Your task to perform on an android device: turn on javascript in the chrome app Image 0: 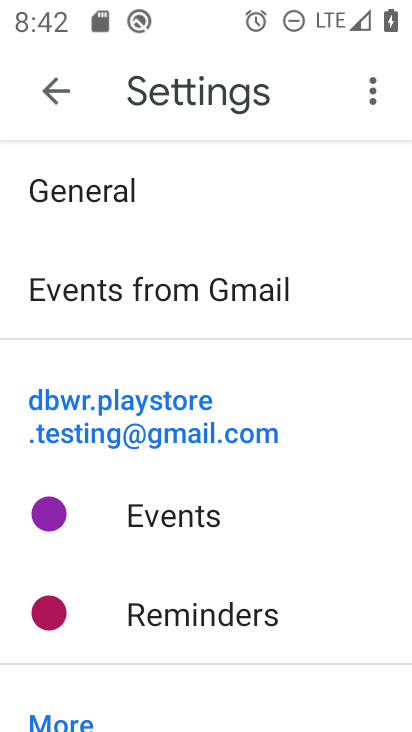
Step 0: press home button
Your task to perform on an android device: turn on javascript in the chrome app Image 1: 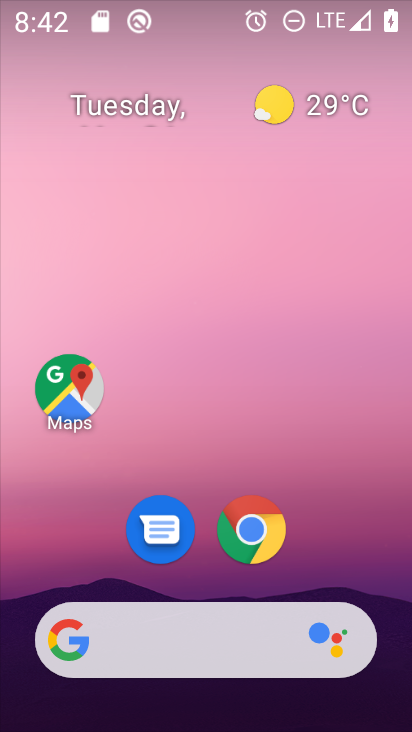
Step 1: drag from (392, 624) to (273, 92)
Your task to perform on an android device: turn on javascript in the chrome app Image 2: 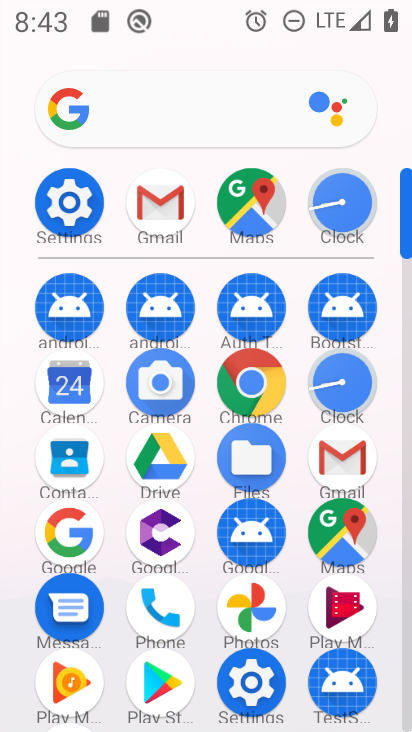
Step 2: click (240, 368)
Your task to perform on an android device: turn on javascript in the chrome app Image 3: 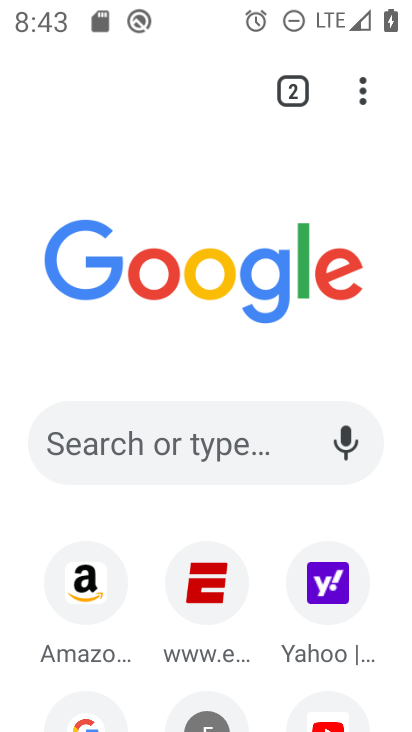
Step 3: click (367, 90)
Your task to perform on an android device: turn on javascript in the chrome app Image 4: 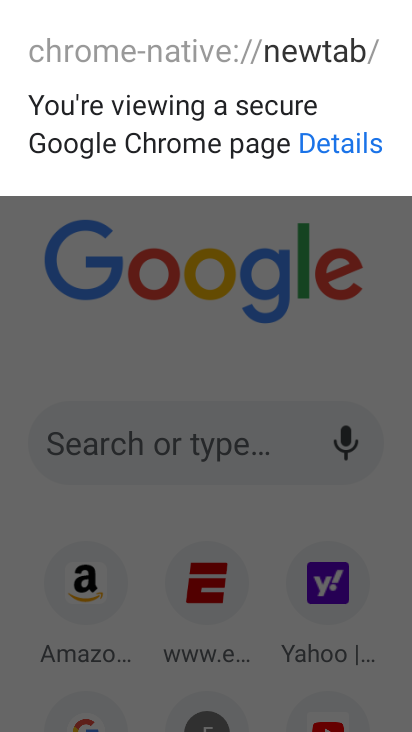
Step 4: press back button
Your task to perform on an android device: turn on javascript in the chrome app Image 5: 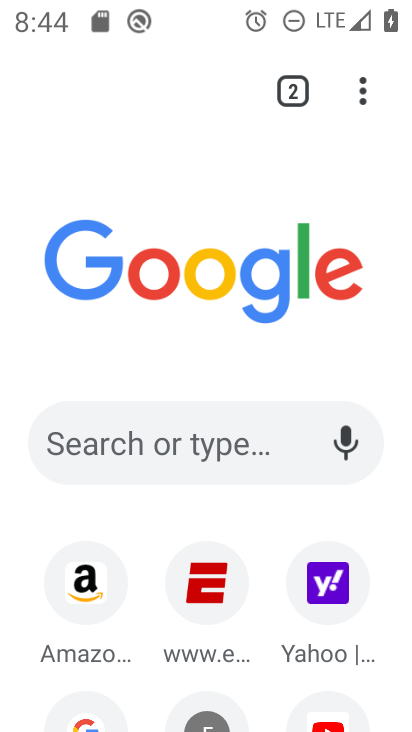
Step 5: click (360, 90)
Your task to perform on an android device: turn on javascript in the chrome app Image 6: 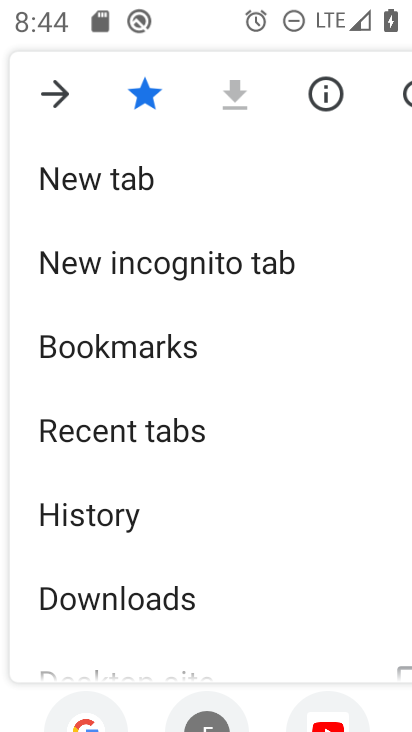
Step 6: drag from (184, 660) to (213, 197)
Your task to perform on an android device: turn on javascript in the chrome app Image 7: 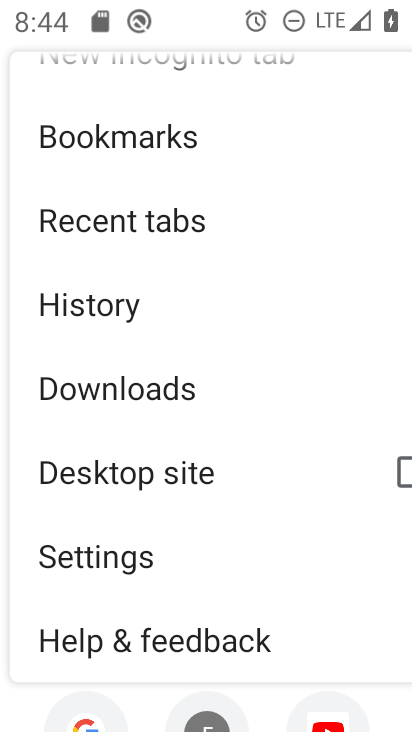
Step 7: click (144, 569)
Your task to perform on an android device: turn on javascript in the chrome app Image 8: 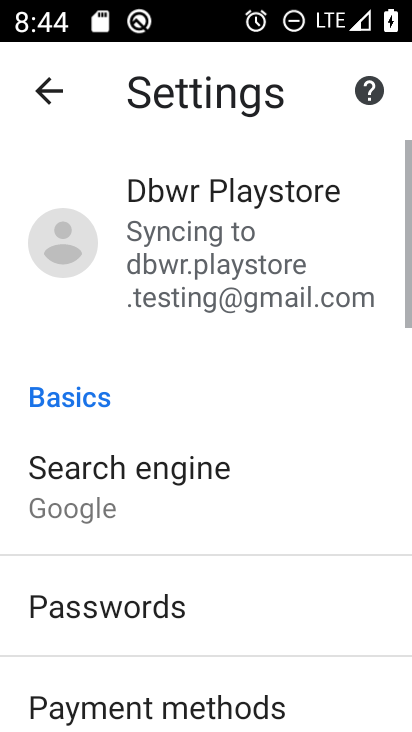
Step 8: drag from (130, 650) to (190, 224)
Your task to perform on an android device: turn on javascript in the chrome app Image 9: 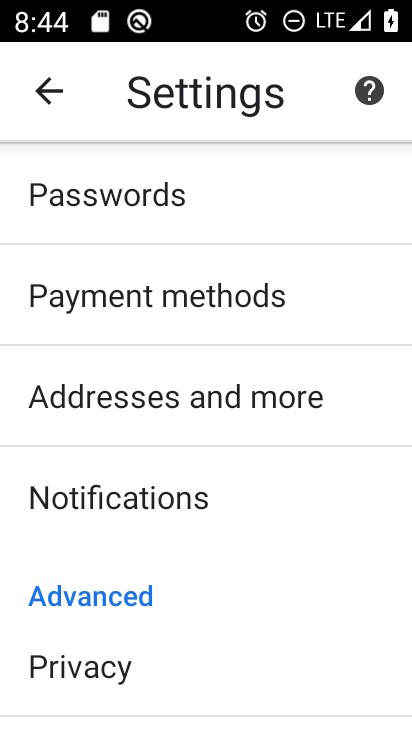
Step 9: drag from (213, 629) to (243, 246)
Your task to perform on an android device: turn on javascript in the chrome app Image 10: 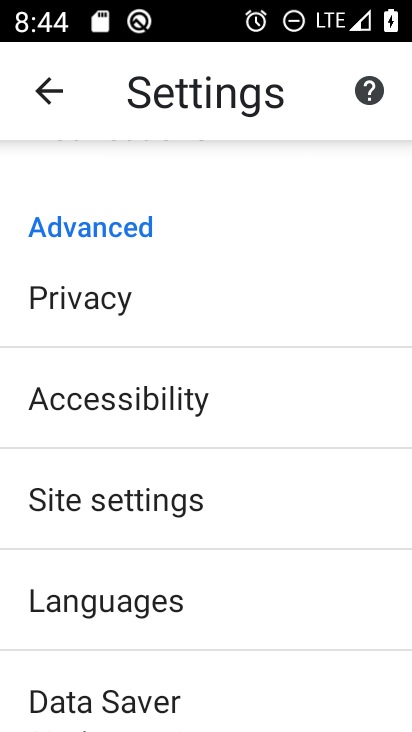
Step 10: click (198, 532)
Your task to perform on an android device: turn on javascript in the chrome app Image 11: 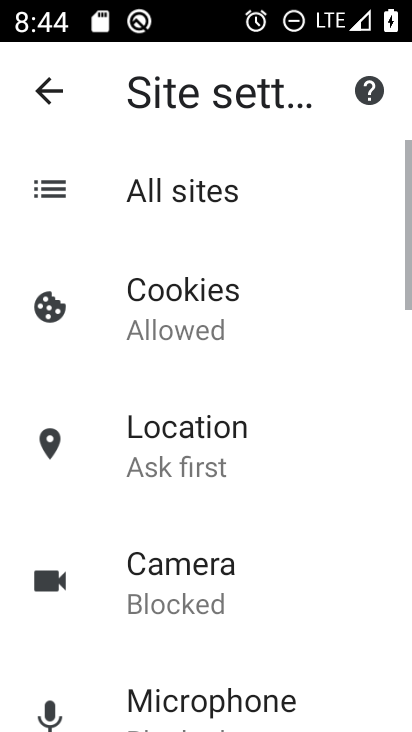
Step 11: drag from (180, 676) to (200, 327)
Your task to perform on an android device: turn on javascript in the chrome app Image 12: 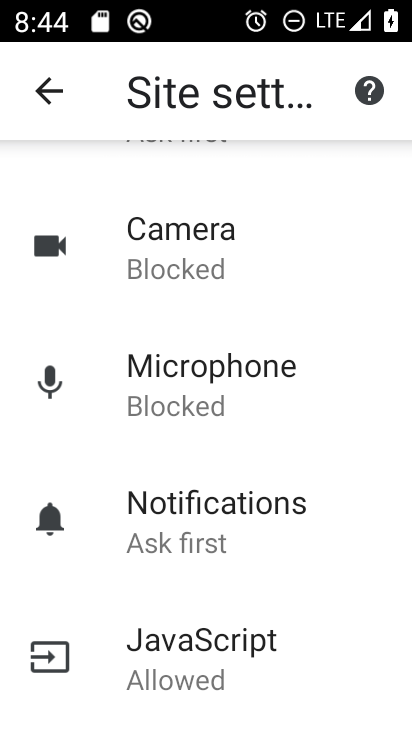
Step 12: click (214, 648)
Your task to perform on an android device: turn on javascript in the chrome app Image 13: 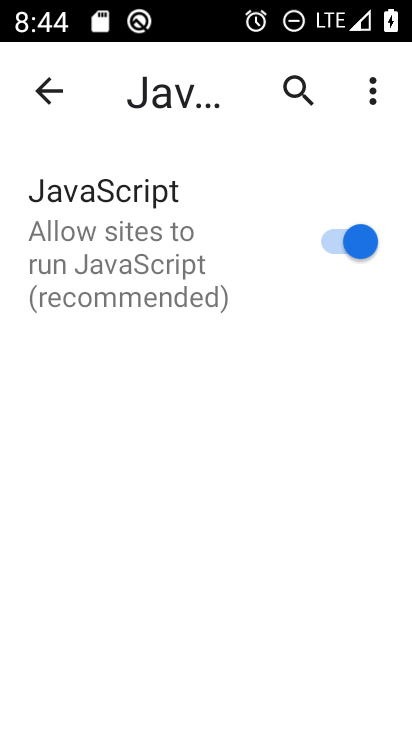
Step 13: task complete